Your task to perform on an android device: open chrome privacy settings Image 0: 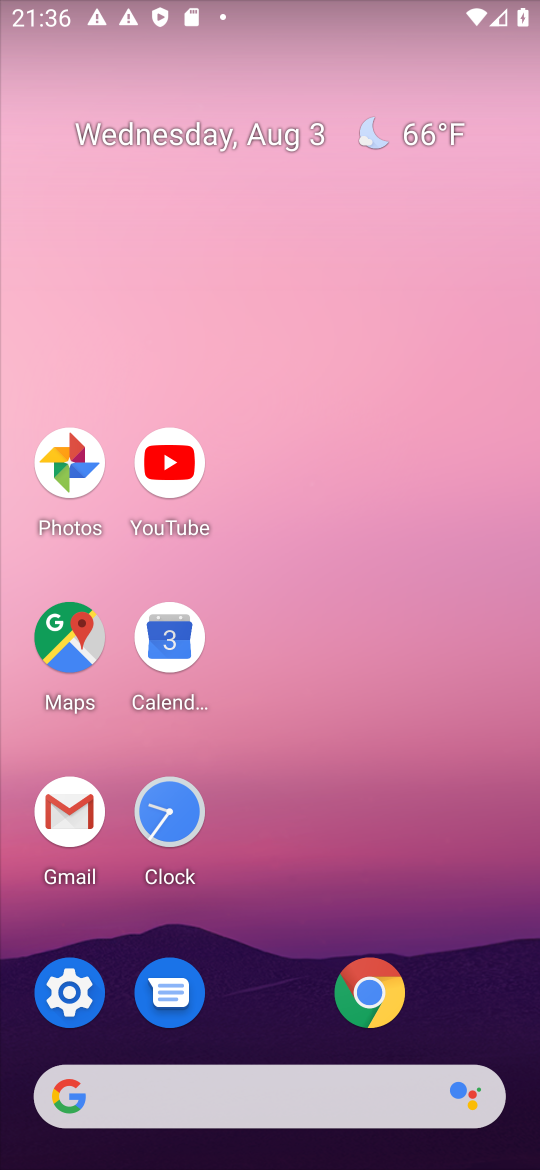
Step 0: click (372, 1000)
Your task to perform on an android device: open chrome privacy settings Image 1: 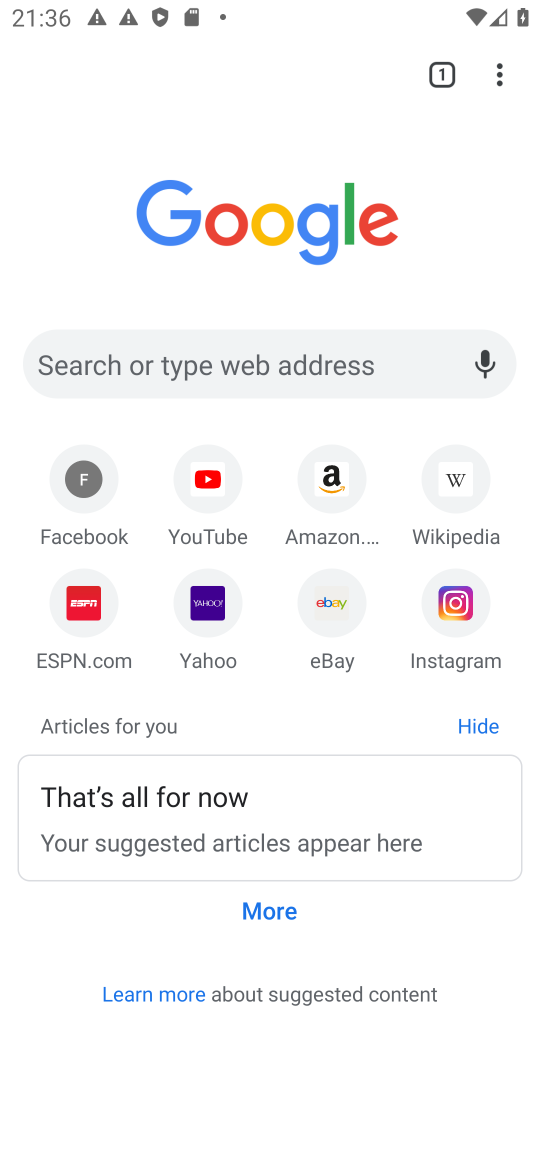
Step 1: click (508, 80)
Your task to perform on an android device: open chrome privacy settings Image 2: 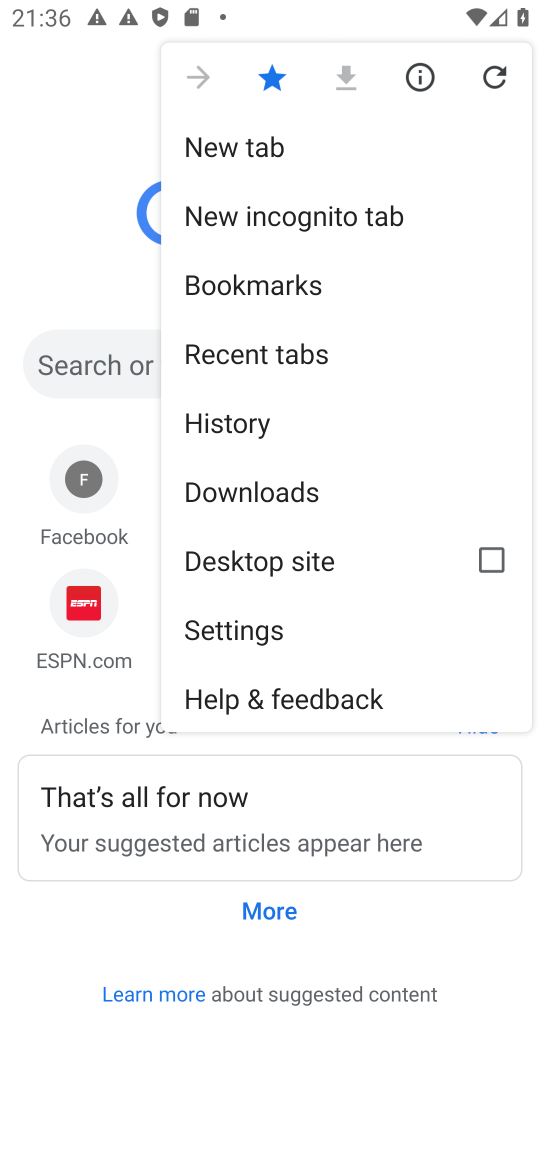
Step 2: click (250, 612)
Your task to perform on an android device: open chrome privacy settings Image 3: 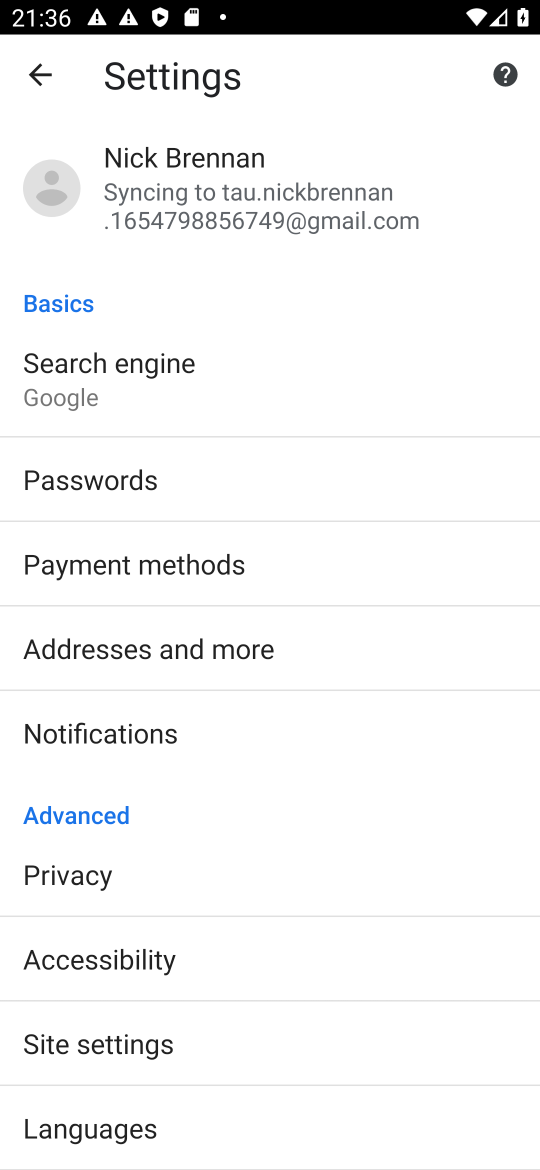
Step 3: click (87, 879)
Your task to perform on an android device: open chrome privacy settings Image 4: 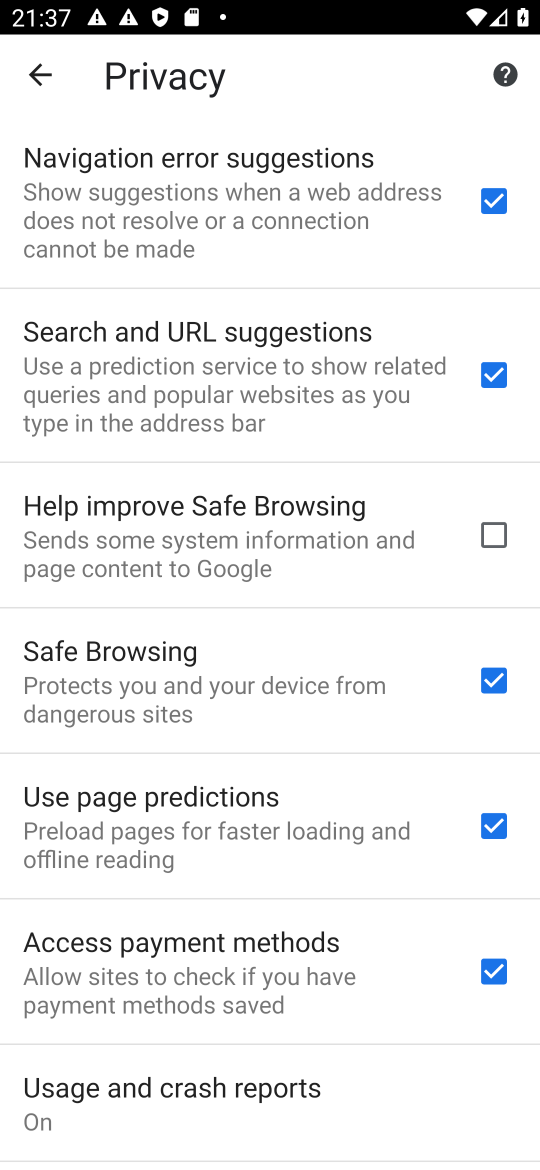
Step 4: task complete